Your task to perform on an android device: toggle pop-ups in chrome Image 0: 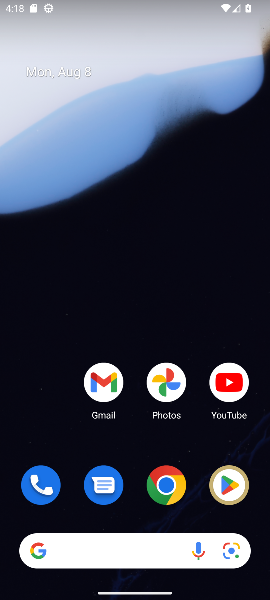
Step 0: drag from (191, 415) to (156, 172)
Your task to perform on an android device: toggle pop-ups in chrome Image 1: 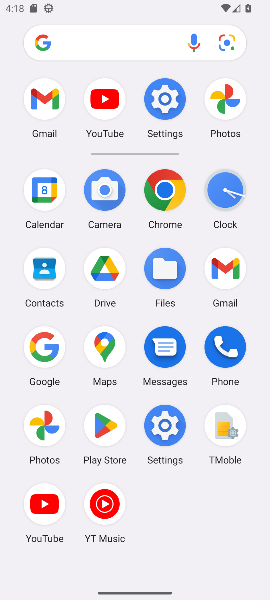
Step 1: click (152, 198)
Your task to perform on an android device: toggle pop-ups in chrome Image 2: 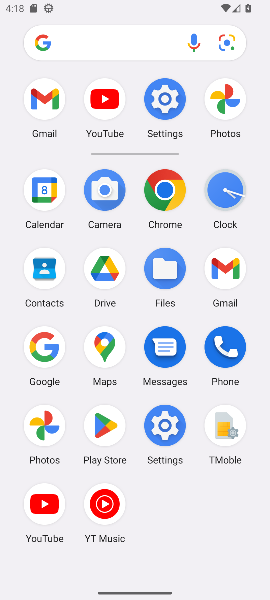
Step 2: click (157, 198)
Your task to perform on an android device: toggle pop-ups in chrome Image 3: 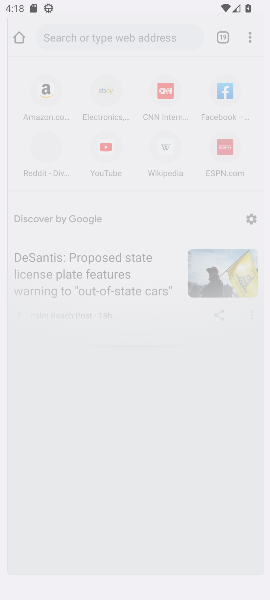
Step 3: click (161, 202)
Your task to perform on an android device: toggle pop-ups in chrome Image 4: 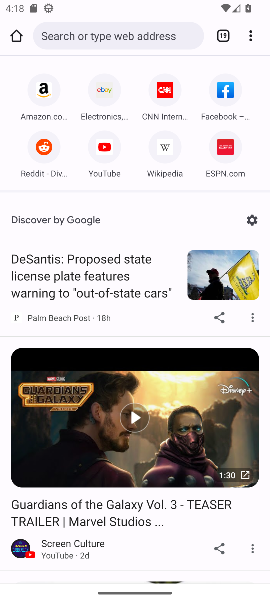
Step 4: drag from (245, 30) to (127, 325)
Your task to perform on an android device: toggle pop-ups in chrome Image 5: 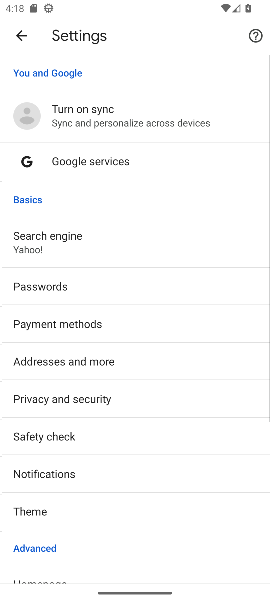
Step 5: click (128, 323)
Your task to perform on an android device: toggle pop-ups in chrome Image 6: 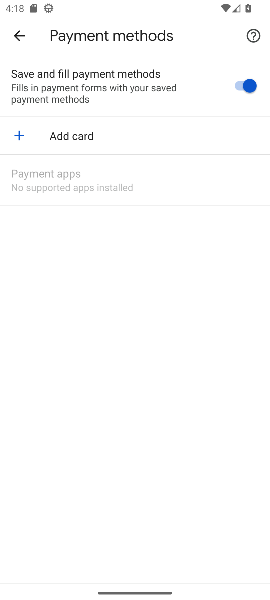
Step 6: click (19, 31)
Your task to perform on an android device: toggle pop-ups in chrome Image 7: 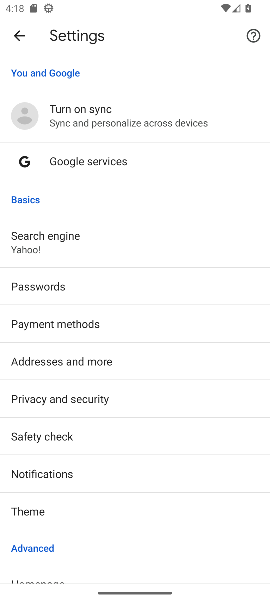
Step 7: drag from (86, 484) to (114, 181)
Your task to perform on an android device: toggle pop-ups in chrome Image 8: 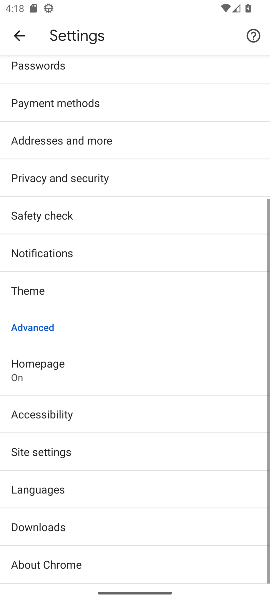
Step 8: drag from (122, 324) to (100, 201)
Your task to perform on an android device: toggle pop-ups in chrome Image 9: 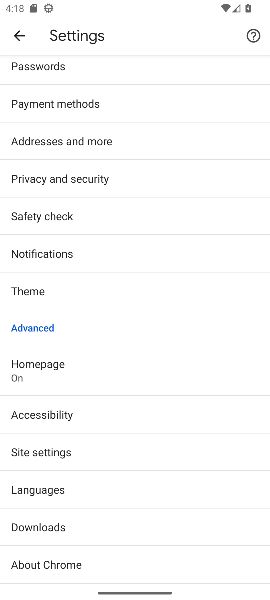
Step 9: click (34, 443)
Your task to perform on an android device: toggle pop-ups in chrome Image 10: 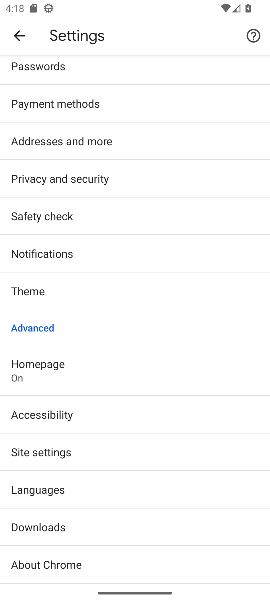
Step 10: click (33, 455)
Your task to perform on an android device: toggle pop-ups in chrome Image 11: 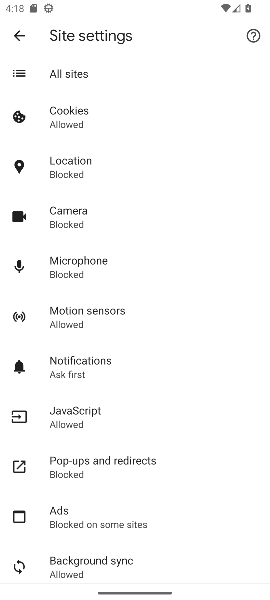
Step 11: click (77, 461)
Your task to perform on an android device: toggle pop-ups in chrome Image 12: 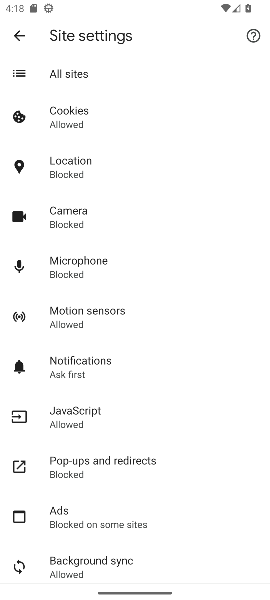
Step 12: click (76, 462)
Your task to perform on an android device: toggle pop-ups in chrome Image 13: 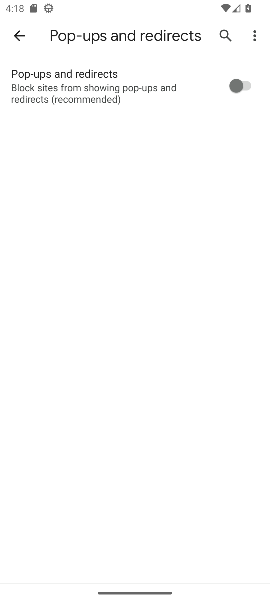
Step 13: click (239, 81)
Your task to perform on an android device: toggle pop-ups in chrome Image 14: 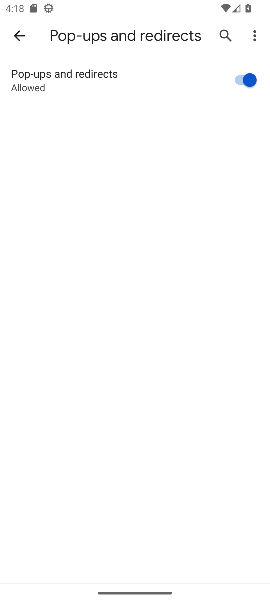
Step 14: task complete